Your task to perform on an android device: delete the emails in spam in the gmail app Image 0: 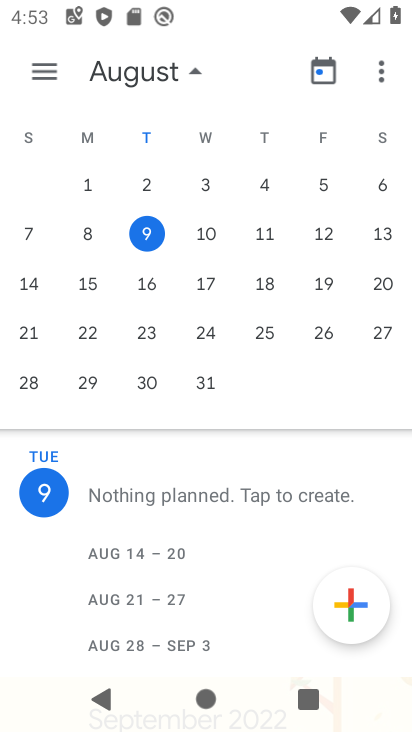
Step 0: press home button
Your task to perform on an android device: delete the emails in spam in the gmail app Image 1: 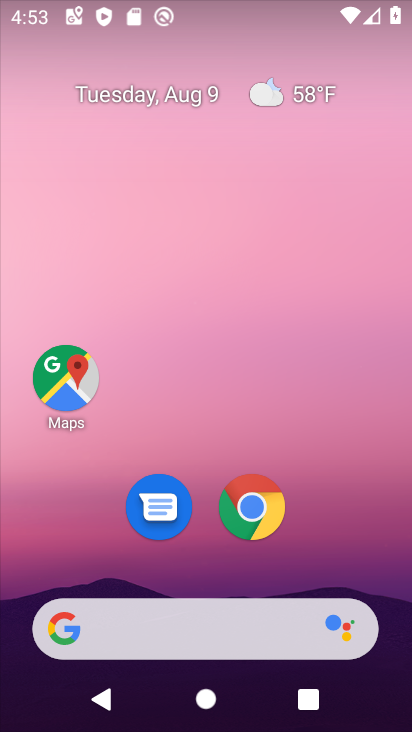
Step 1: drag from (319, 542) to (301, 229)
Your task to perform on an android device: delete the emails in spam in the gmail app Image 2: 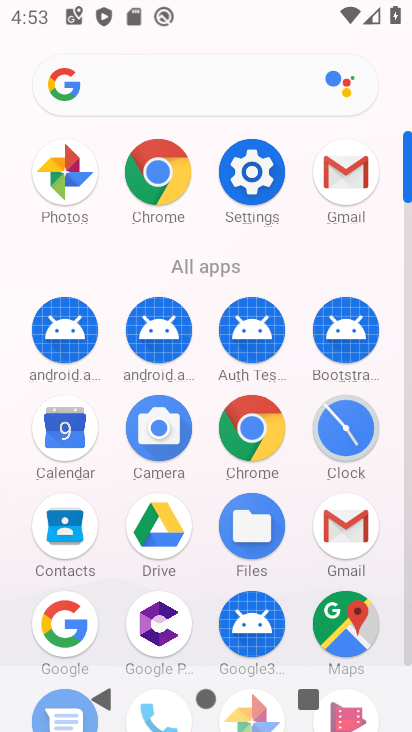
Step 2: click (347, 174)
Your task to perform on an android device: delete the emails in spam in the gmail app Image 3: 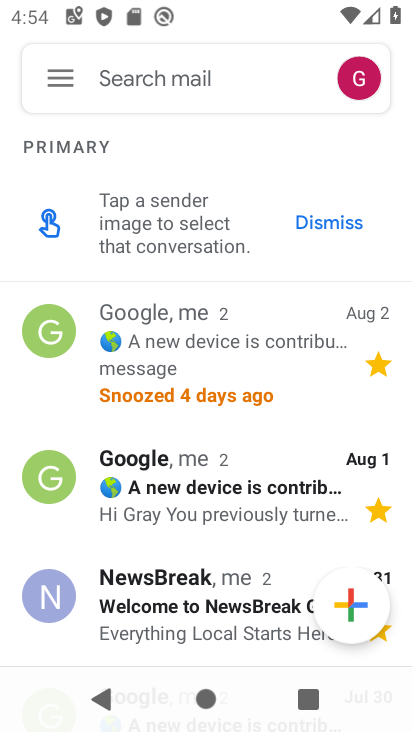
Step 3: click (54, 83)
Your task to perform on an android device: delete the emails in spam in the gmail app Image 4: 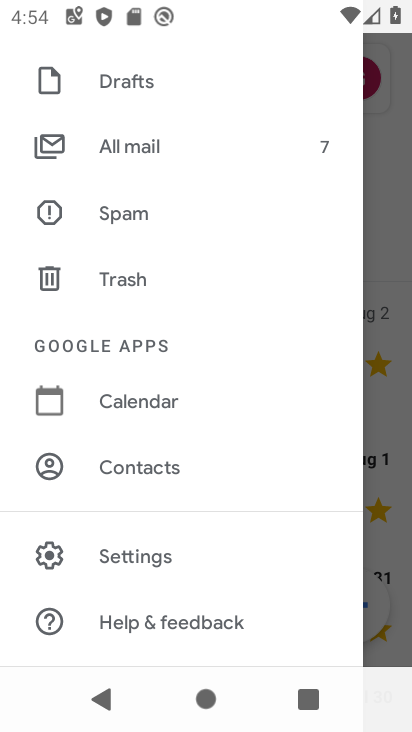
Step 4: click (134, 218)
Your task to perform on an android device: delete the emails in spam in the gmail app Image 5: 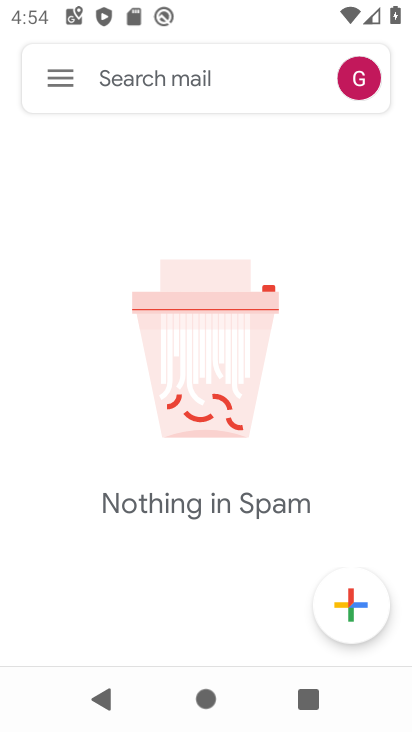
Step 5: task complete